Your task to perform on an android device: Open calendar and show me the fourth week of next month Image 0: 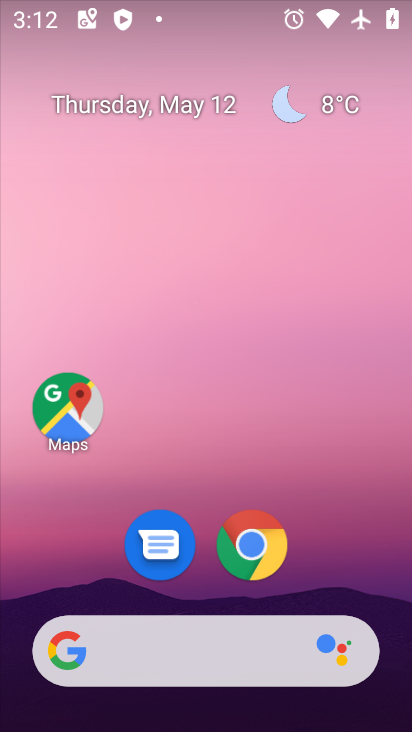
Step 0: drag from (385, 653) to (281, 77)
Your task to perform on an android device: Open calendar and show me the fourth week of next month Image 1: 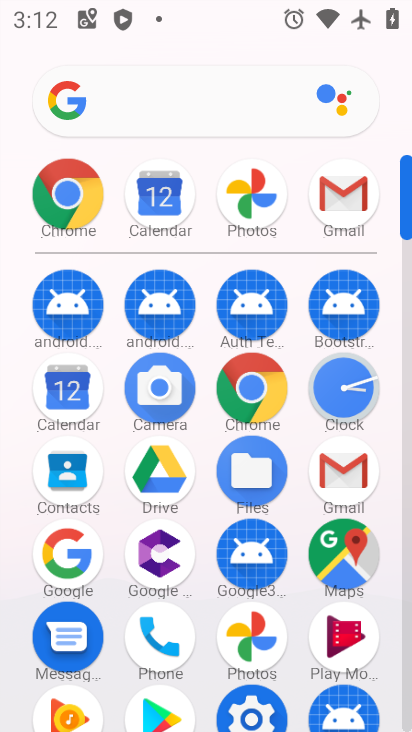
Step 1: click (65, 383)
Your task to perform on an android device: Open calendar and show me the fourth week of next month Image 2: 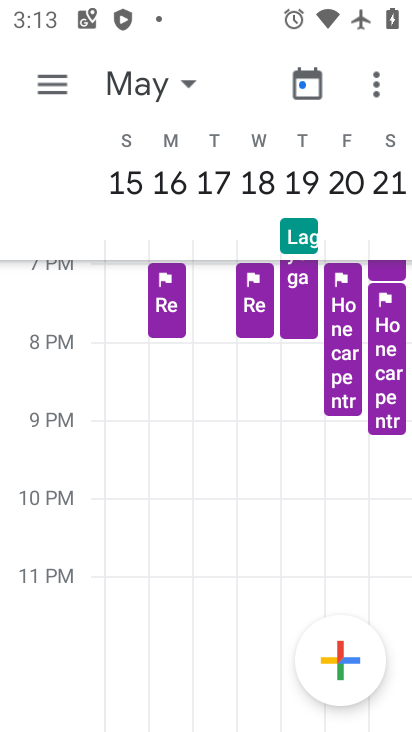
Step 2: click (182, 82)
Your task to perform on an android device: Open calendar and show me the fourth week of next month Image 3: 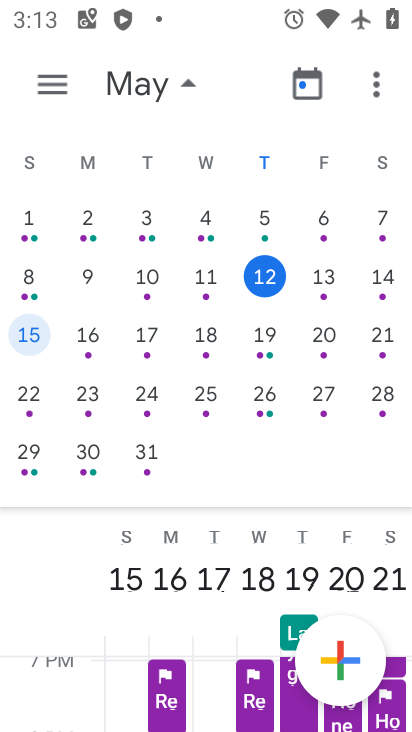
Step 3: drag from (393, 333) to (41, 262)
Your task to perform on an android device: Open calendar and show me the fourth week of next month Image 4: 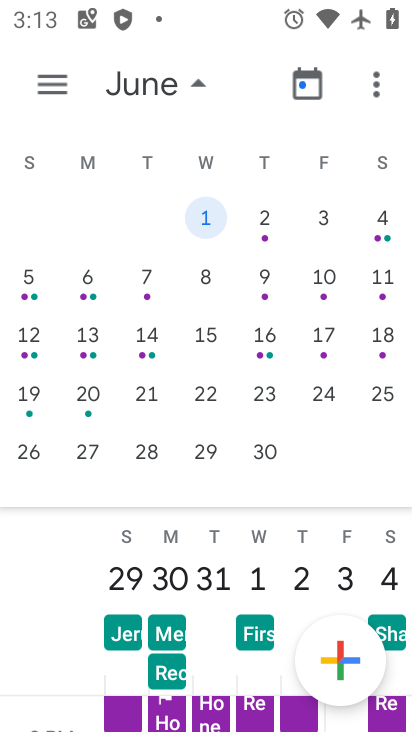
Step 4: click (25, 393)
Your task to perform on an android device: Open calendar and show me the fourth week of next month Image 5: 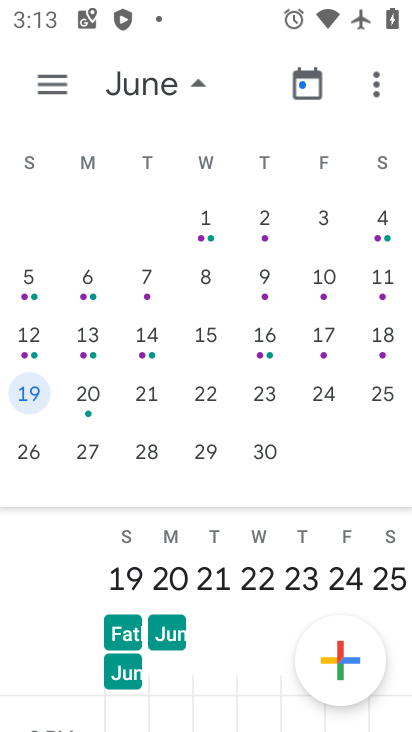
Step 5: task complete